Your task to perform on an android device: Open settings on Google Maps Image 0: 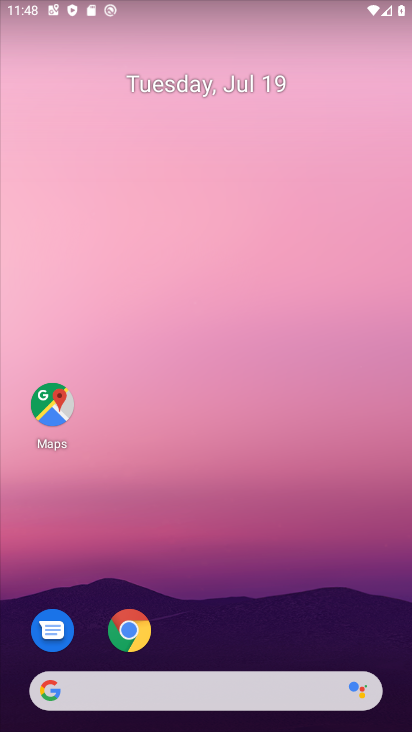
Step 0: drag from (231, 560) to (217, 209)
Your task to perform on an android device: Open settings on Google Maps Image 1: 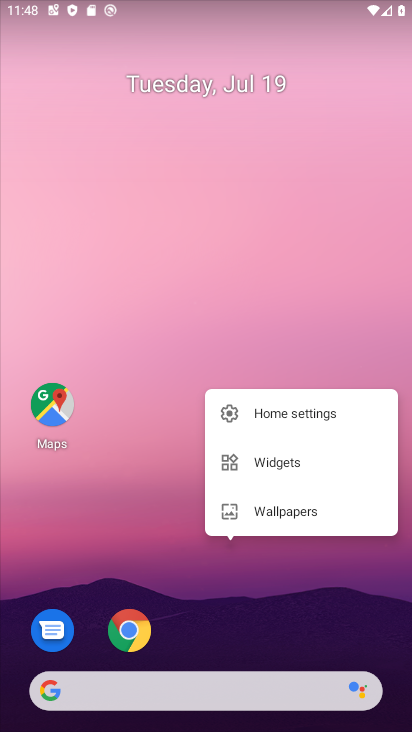
Step 1: drag from (218, 279) to (196, 127)
Your task to perform on an android device: Open settings on Google Maps Image 2: 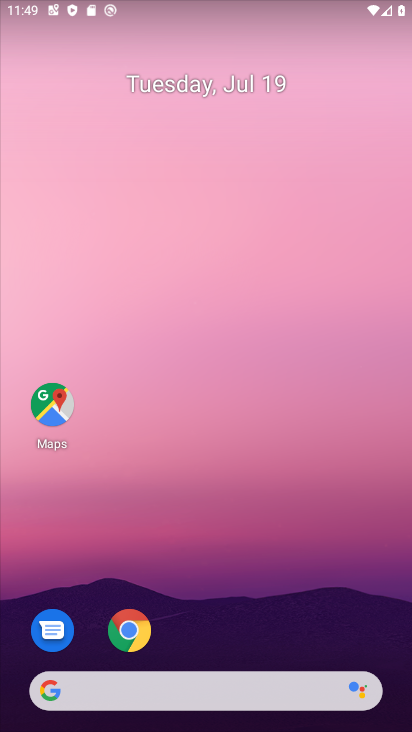
Step 2: click (51, 399)
Your task to perform on an android device: Open settings on Google Maps Image 3: 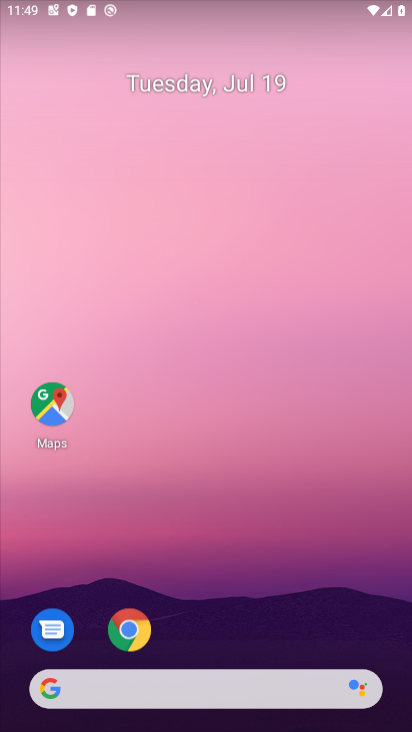
Step 3: click (46, 389)
Your task to perform on an android device: Open settings on Google Maps Image 4: 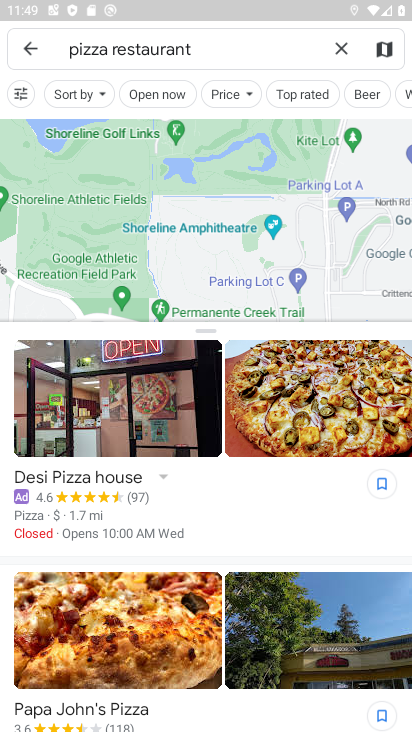
Step 4: click (29, 53)
Your task to perform on an android device: Open settings on Google Maps Image 5: 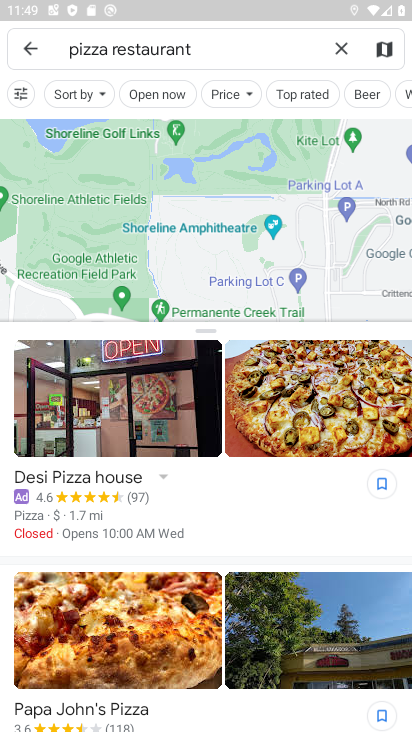
Step 5: click (24, 47)
Your task to perform on an android device: Open settings on Google Maps Image 6: 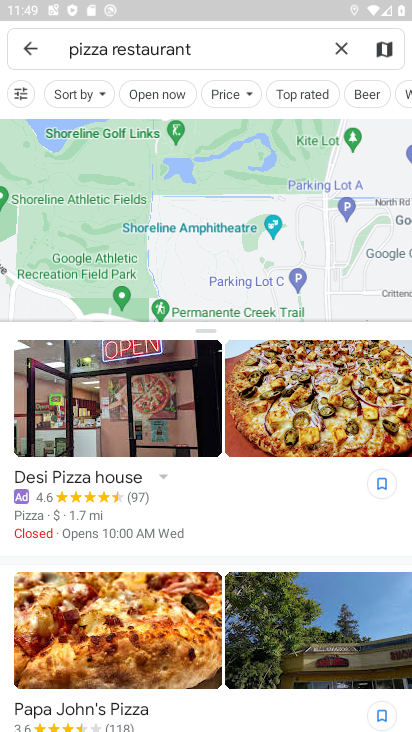
Step 6: click (24, 47)
Your task to perform on an android device: Open settings on Google Maps Image 7: 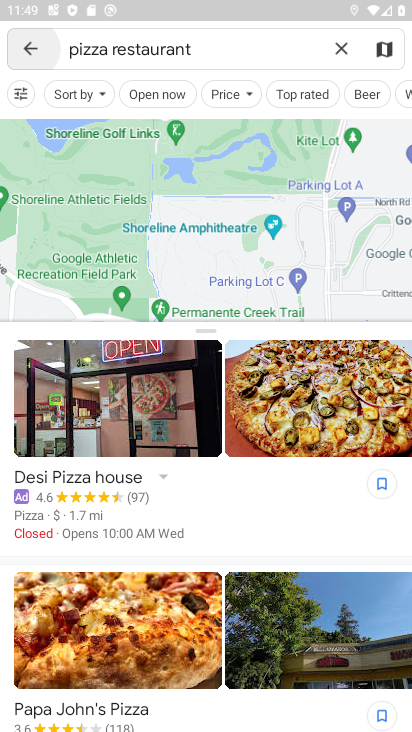
Step 7: click (24, 47)
Your task to perform on an android device: Open settings on Google Maps Image 8: 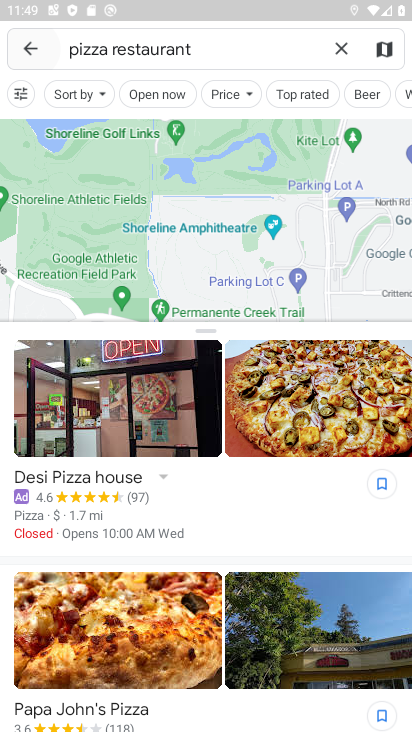
Step 8: click (24, 47)
Your task to perform on an android device: Open settings on Google Maps Image 9: 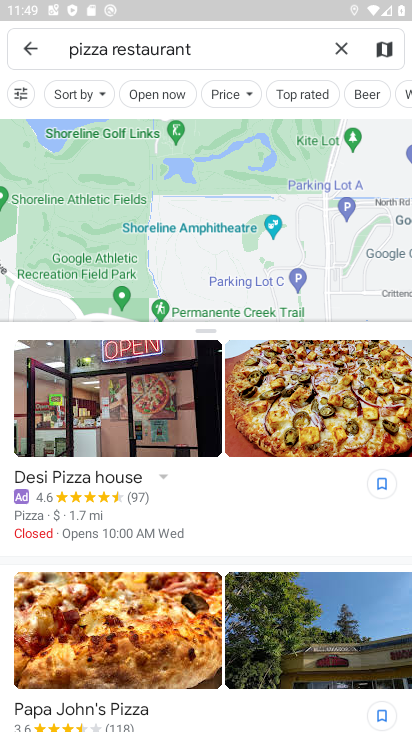
Step 9: click (28, 54)
Your task to perform on an android device: Open settings on Google Maps Image 10: 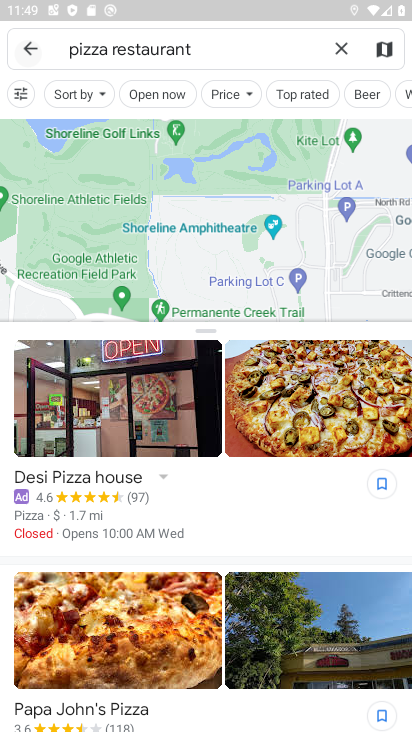
Step 10: click (28, 51)
Your task to perform on an android device: Open settings on Google Maps Image 11: 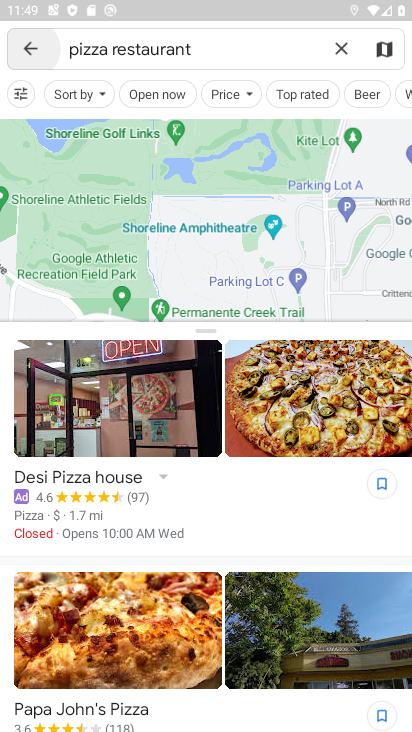
Step 11: click (23, 46)
Your task to perform on an android device: Open settings on Google Maps Image 12: 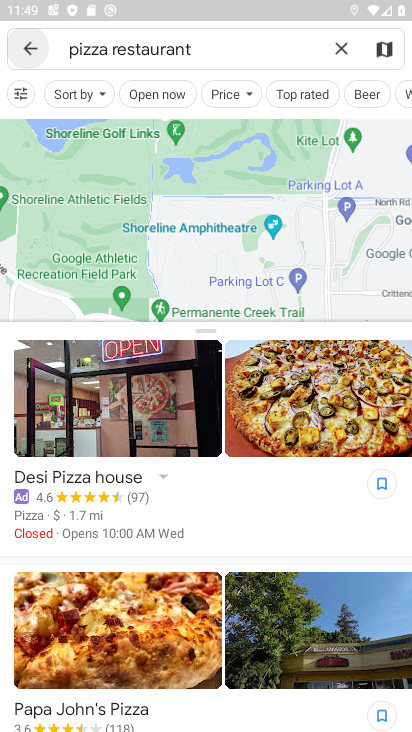
Step 12: click (23, 46)
Your task to perform on an android device: Open settings on Google Maps Image 13: 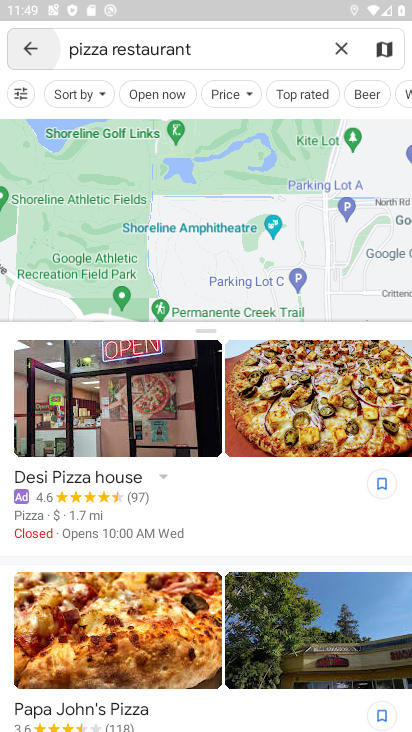
Step 13: click (24, 46)
Your task to perform on an android device: Open settings on Google Maps Image 14: 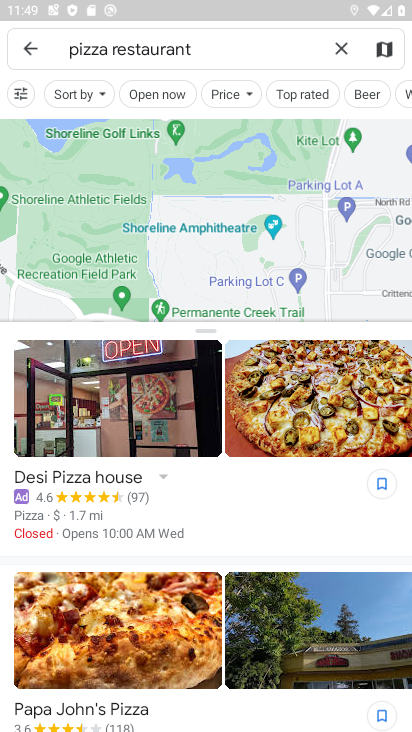
Step 14: click (43, 46)
Your task to perform on an android device: Open settings on Google Maps Image 15: 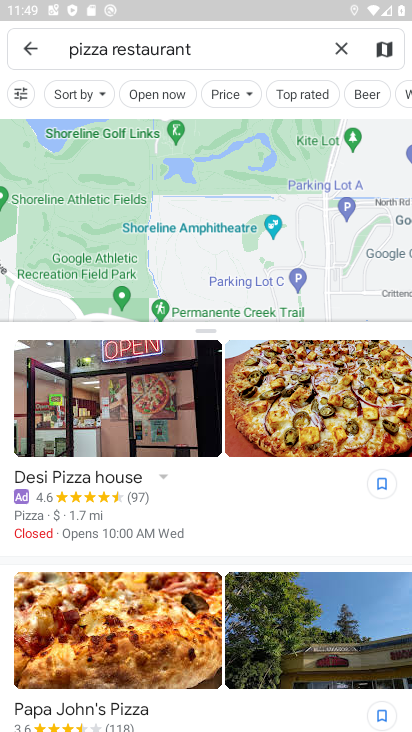
Step 15: click (332, 50)
Your task to perform on an android device: Open settings on Google Maps Image 16: 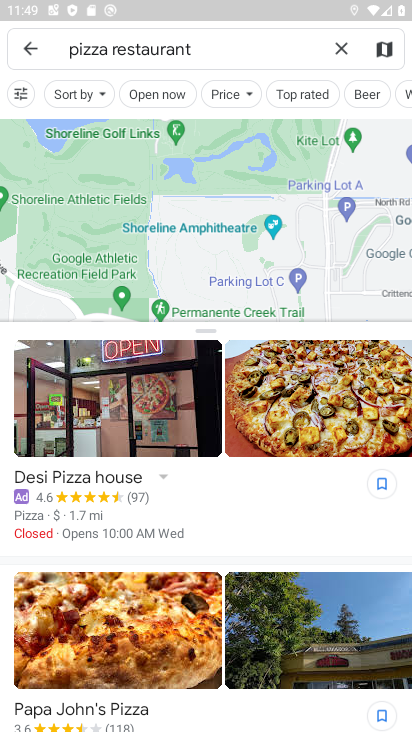
Step 16: click (337, 47)
Your task to perform on an android device: Open settings on Google Maps Image 17: 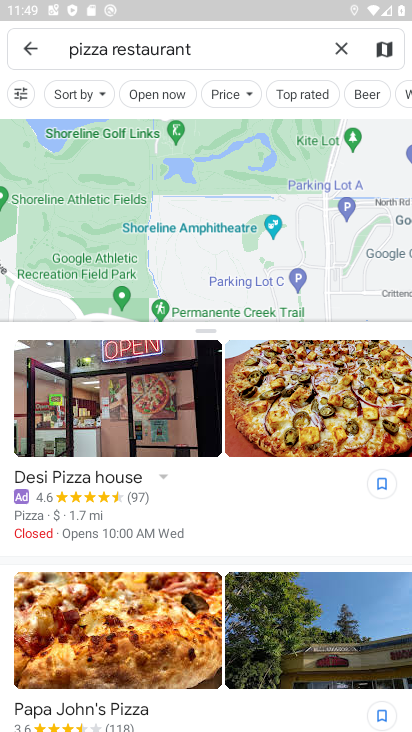
Step 17: click (337, 49)
Your task to perform on an android device: Open settings on Google Maps Image 18: 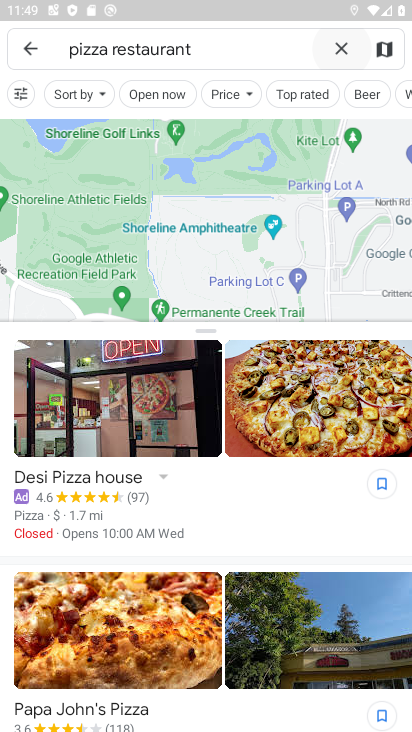
Step 18: click (348, 56)
Your task to perform on an android device: Open settings on Google Maps Image 19: 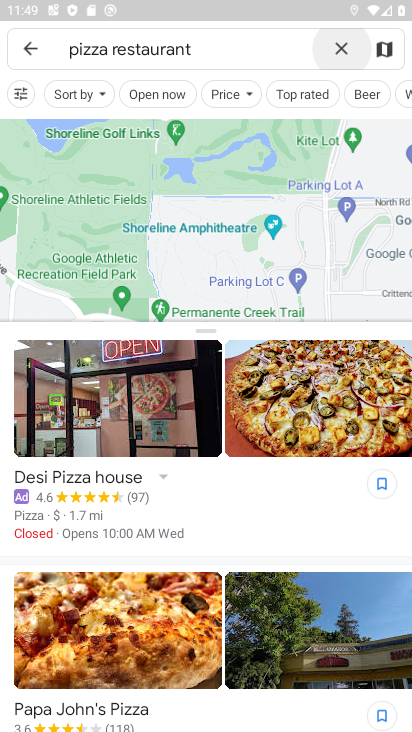
Step 19: click (333, 40)
Your task to perform on an android device: Open settings on Google Maps Image 20: 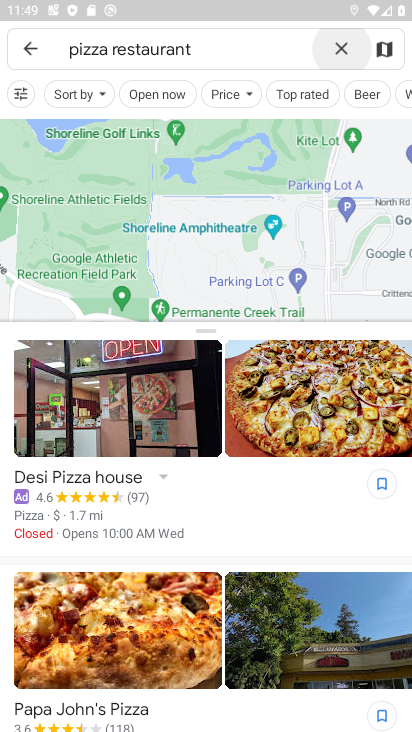
Step 20: click (340, 44)
Your task to perform on an android device: Open settings on Google Maps Image 21: 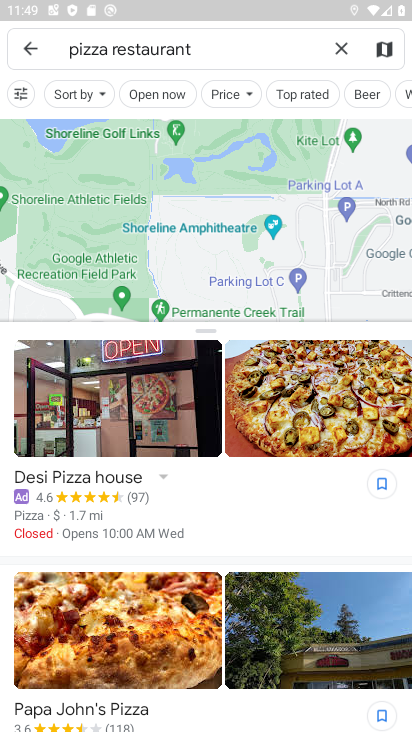
Step 21: task complete